Your task to perform on an android device: toggle priority inbox in the gmail app Image 0: 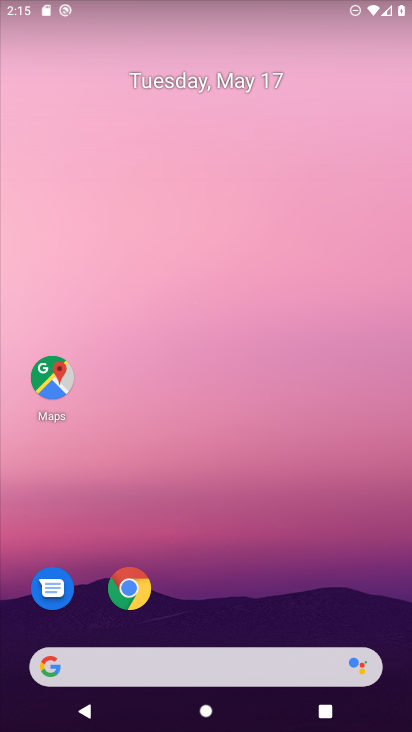
Step 0: drag from (247, 609) to (200, 129)
Your task to perform on an android device: toggle priority inbox in the gmail app Image 1: 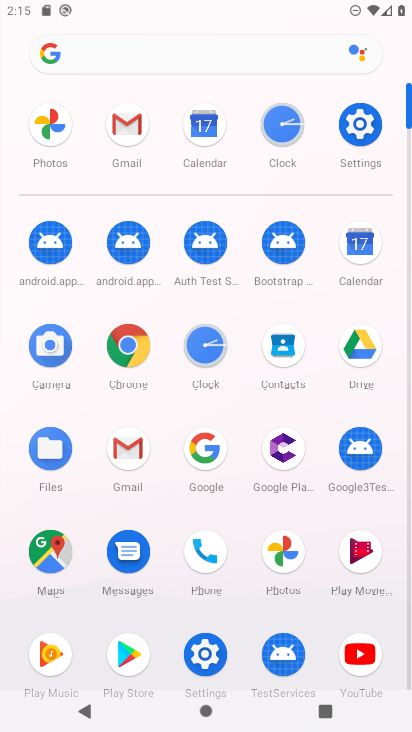
Step 1: click (136, 133)
Your task to perform on an android device: toggle priority inbox in the gmail app Image 2: 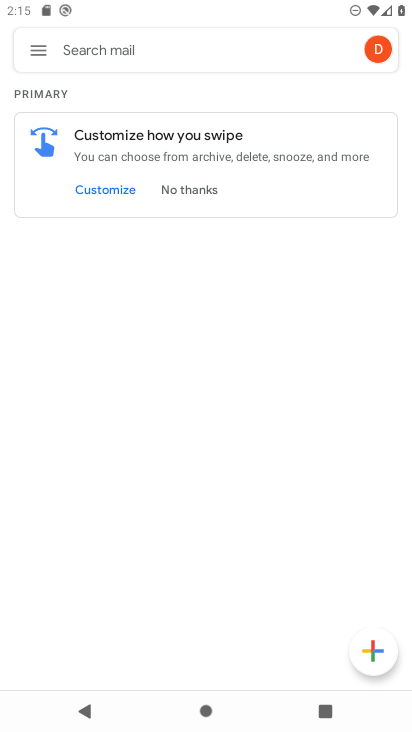
Step 2: click (42, 50)
Your task to perform on an android device: toggle priority inbox in the gmail app Image 3: 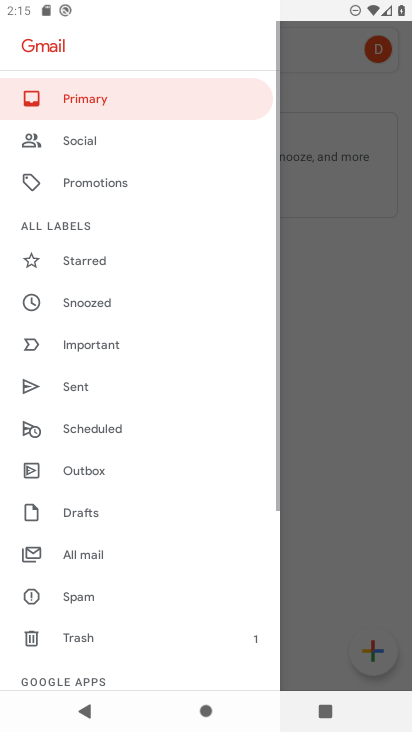
Step 3: drag from (93, 651) to (164, 252)
Your task to perform on an android device: toggle priority inbox in the gmail app Image 4: 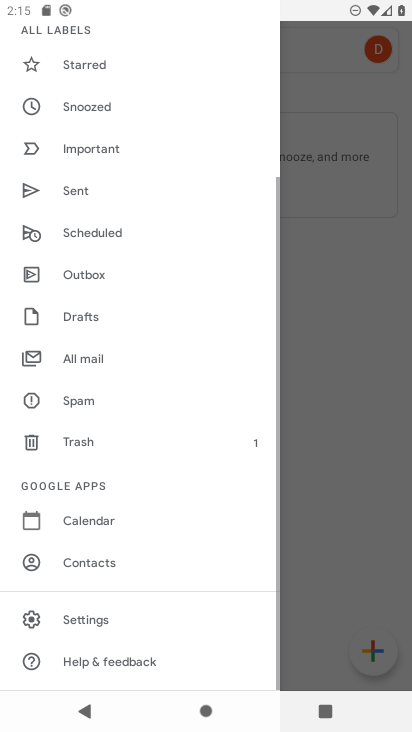
Step 4: click (88, 617)
Your task to perform on an android device: toggle priority inbox in the gmail app Image 5: 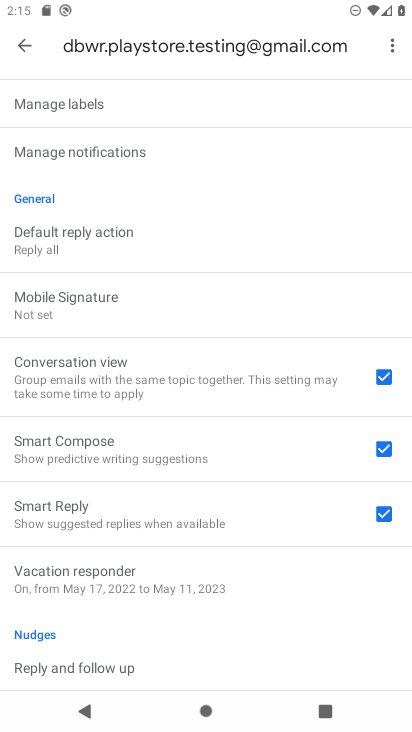
Step 5: drag from (145, 194) to (137, 589)
Your task to perform on an android device: toggle priority inbox in the gmail app Image 6: 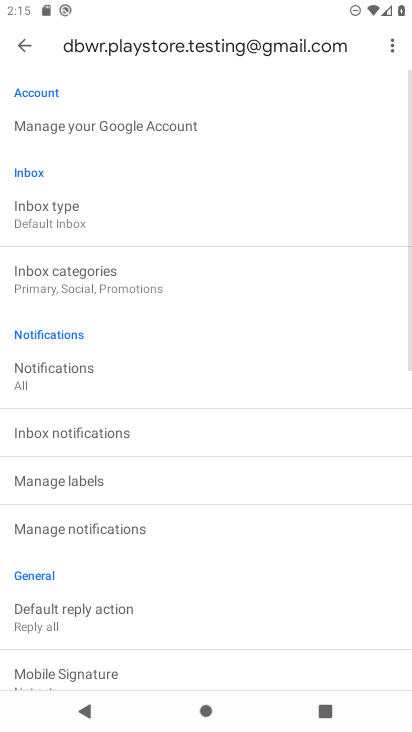
Step 6: drag from (137, 203) to (132, 373)
Your task to perform on an android device: toggle priority inbox in the gmail app Image 7: 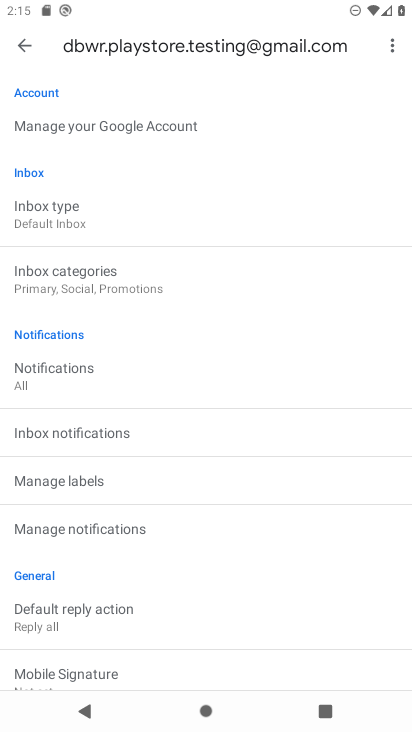
Step 7: click (57, 214)
Your task to perform on an android device: toggle priority inbox in the gmail app Image 8: 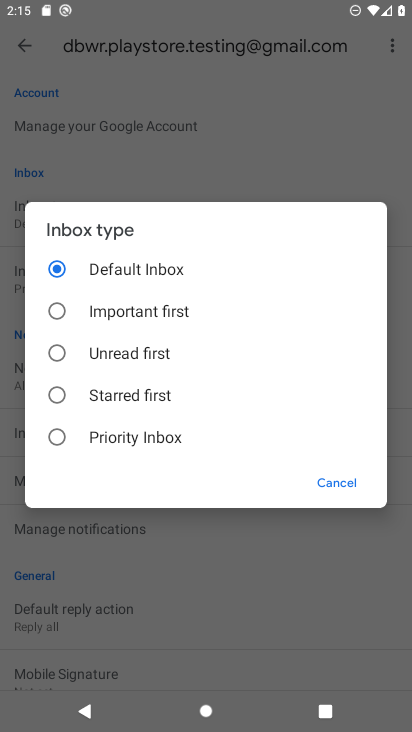
Step 8: click (110, 442)
Your task to perform on an android device: toggle priority inbox in the gmail app Image 9: 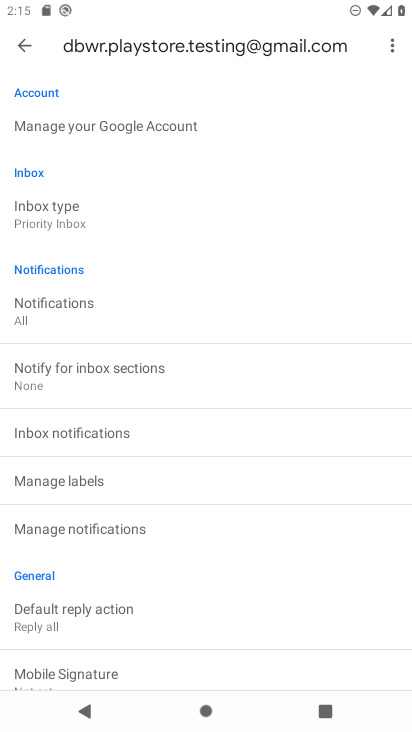
Step 9: task complete